Your task to perform on an android device: find photos in the google photos app Image 0: 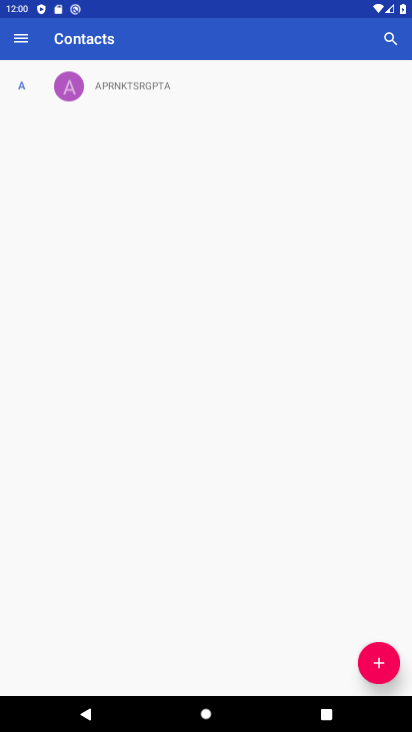
Step 0: press home button
Your task to perform on an android device: find photos in the google photos app Image 1: 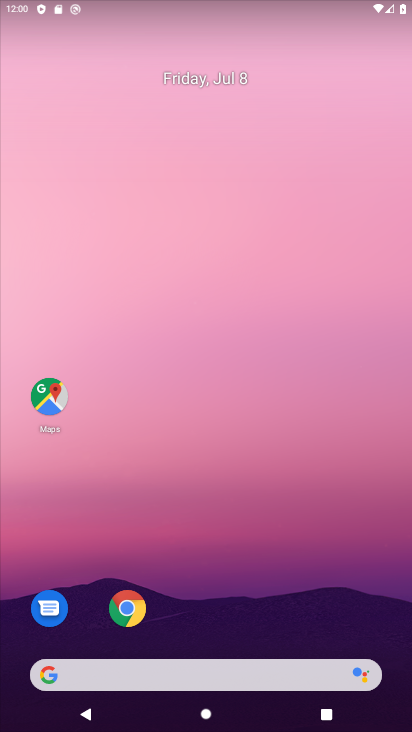
Step 1: drag from (232, 629) to (323, 167)
Your task to perform on an android device: find photos in the google photos app Image 2: 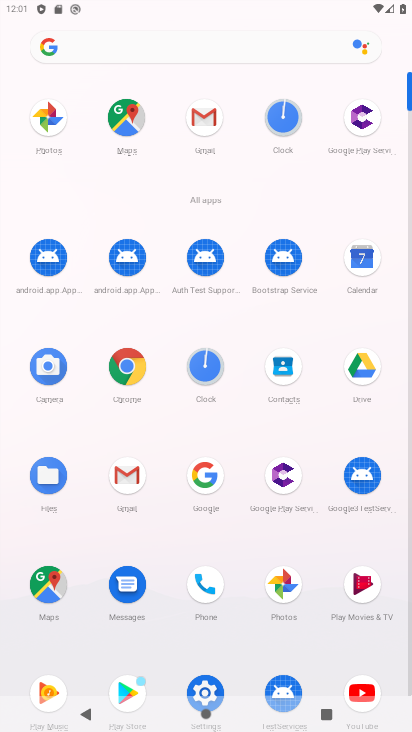
Step 2: click (290, 576)
Your task to perform on an android device: find photos in the google photos app Image 3: 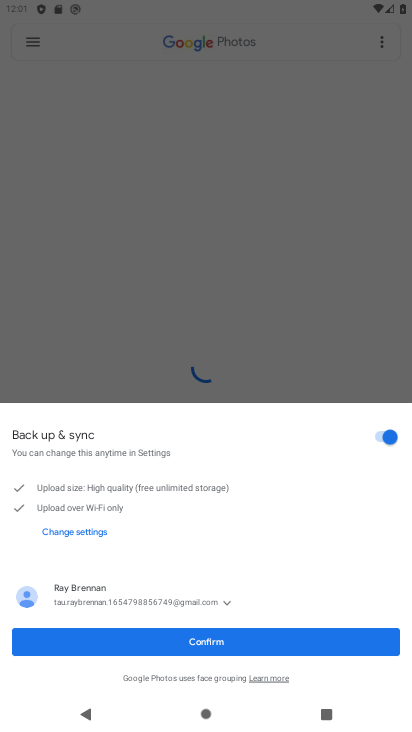
Step 3: click (308, 635)
Your task to perform on an android device: find photos in the google photos app Image 4: 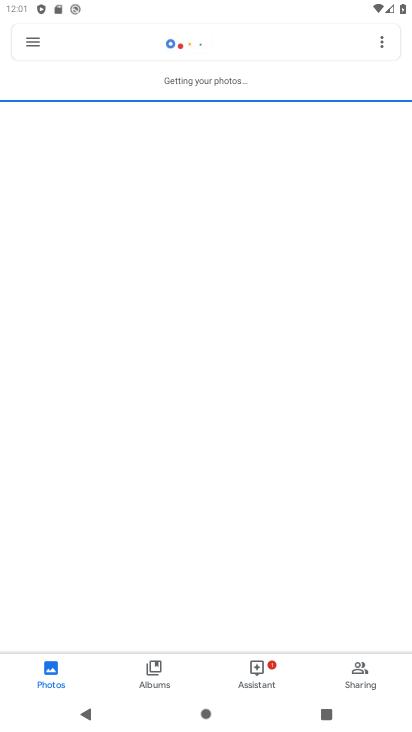
Step 4: click (362, 332)
Your task to perform on an android device: find photos in the google photos app Image 5: 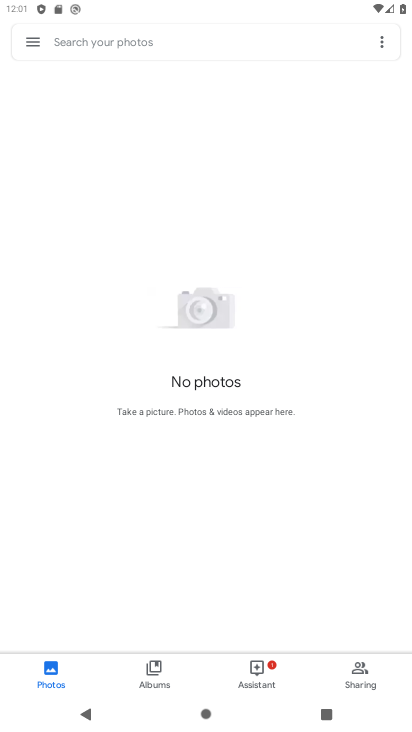
Step 5: task complete